Your task to perform on an android device: change your default location settings in chrome Image 0: 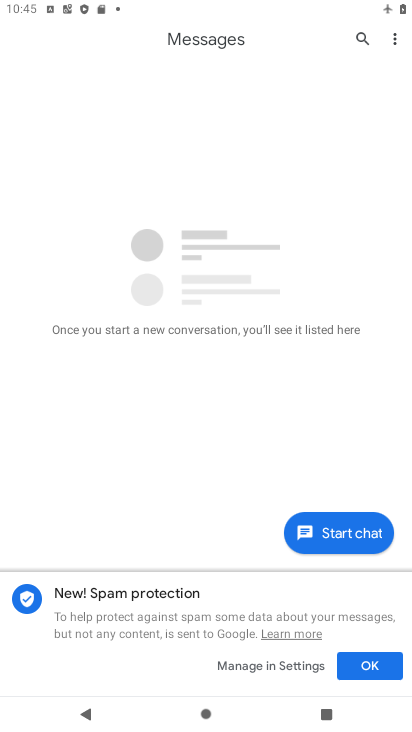
Step 0: press home button
Your task to perform on an android device: change your default location settings in chrome Image 1: 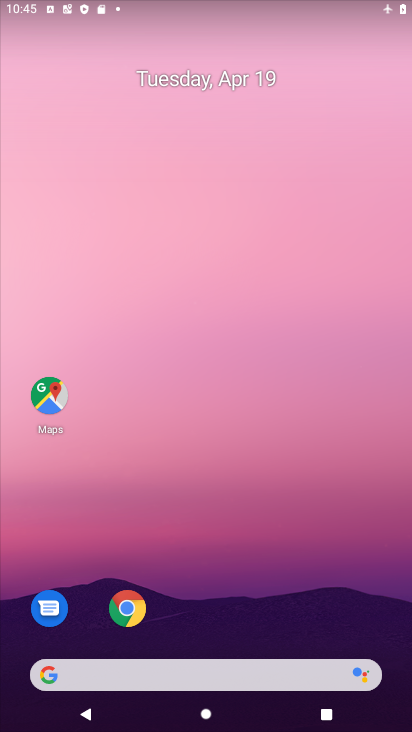
Step 1: click (124, 606)
Your task to perform on an android device: change your default location settings in chrome Image 2: 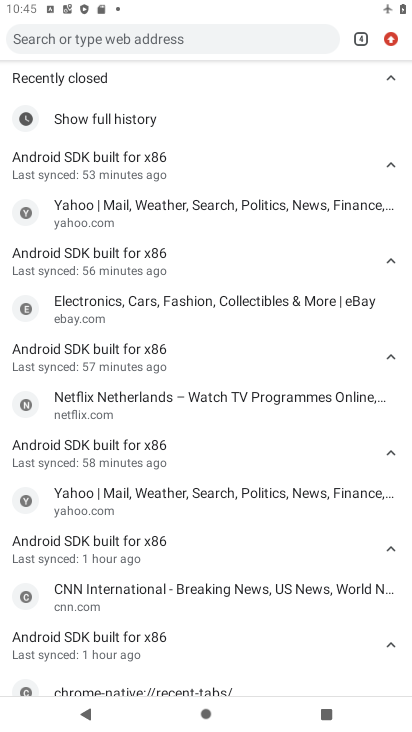
Step 2: click (388, 38)
Your task to perform on an android device: change your default location settings in chrome Image 3: 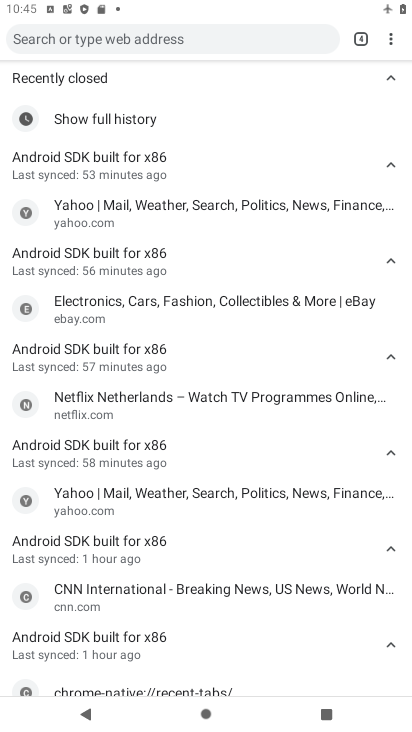
Step 3: click (388, 41)
Your task to perform on an android device: change your default location settings in chrome Image 4: 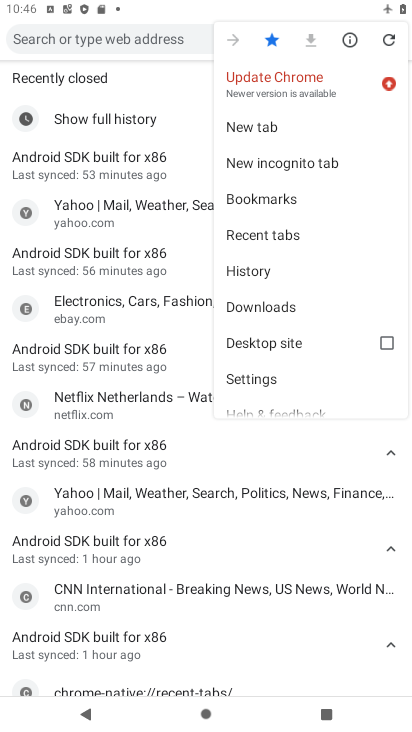
Step 4: click (258, 377)
Your task to perform on an android device: change your default location settings in chrome Image 5: 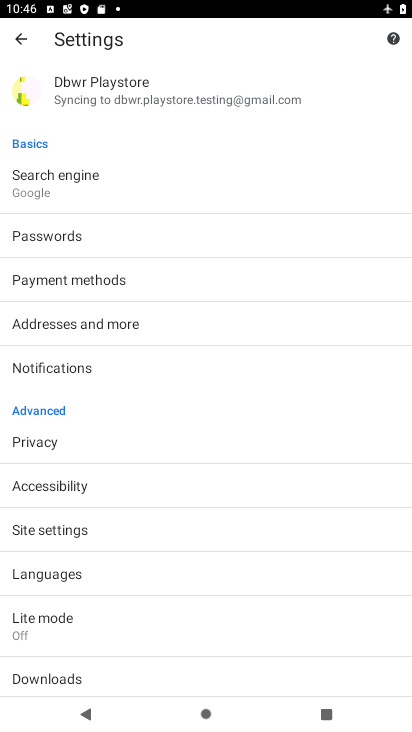
Step 5: click (55, 531)
Your task to perform on an android device: change your default location settings in chrome Image 6: 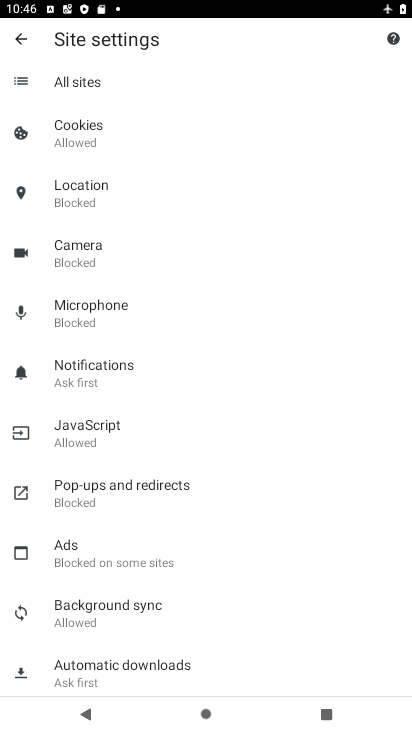
Step 6: click (96, 185)
Your task to perform on an android device: change your default location settings in chrome Image 7: 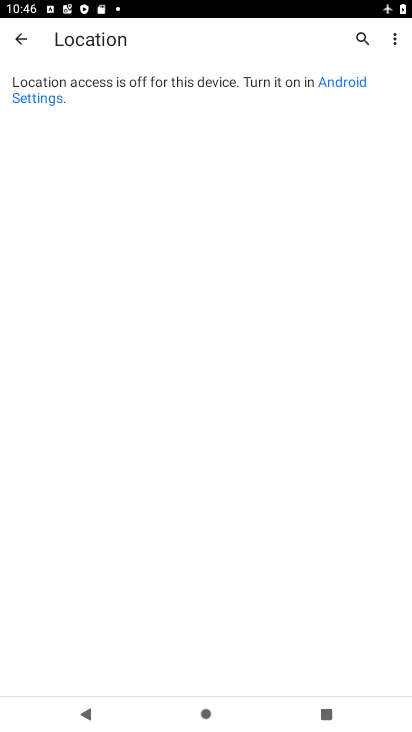
Step 7: task complete